Your task to perform on an android device: turn off location Image 0: 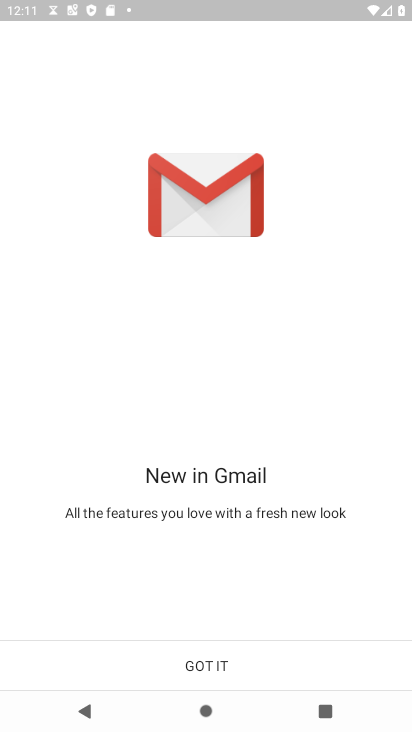
Step 0: press back button
Your task to perform on an android device: turn off location Image 1: 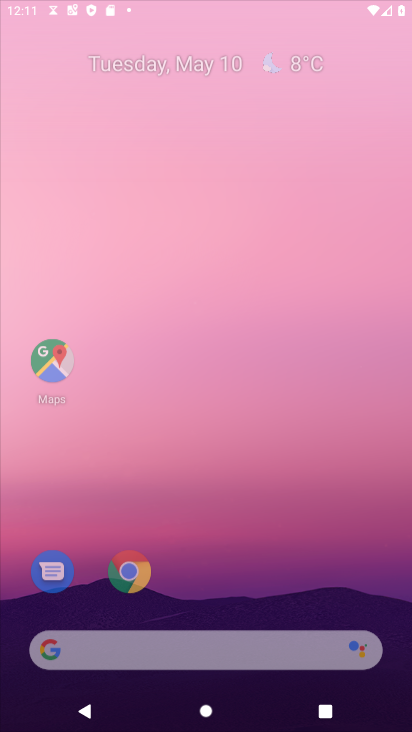
Step 1: press home button
Your task to perform on an android device: turn off location Image 2: 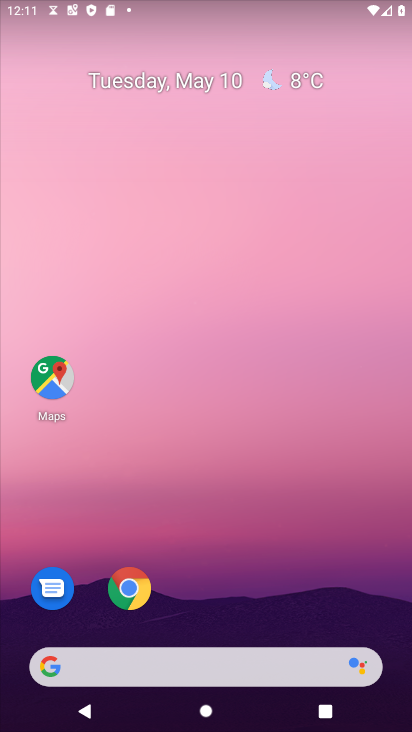
Step 2: drag from (200, 646) to (309, 70)
Your task to perform on an android device: turn off location Image 3: 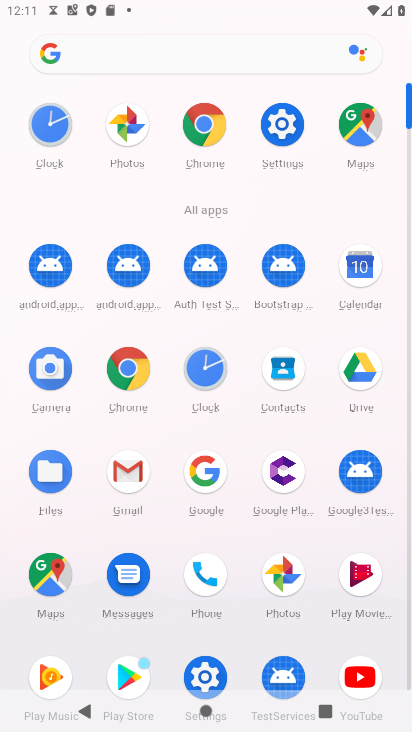
Step 3: click (210, 675)
Your task to perform on an android device: turn off location Image 4: 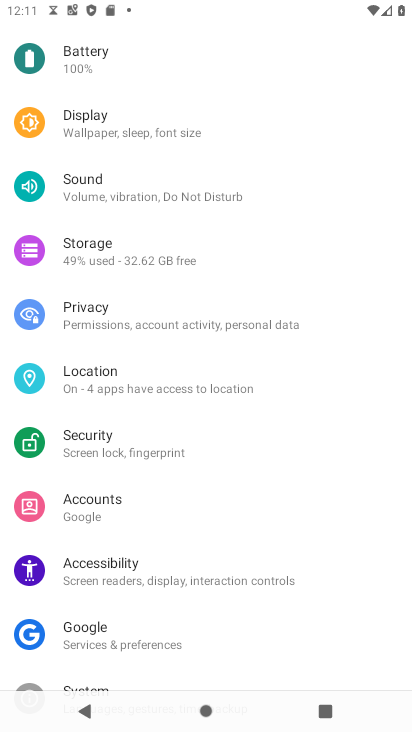
Step 4: click (137, 383)
Your task to perform on an android device: turn off location Image 5: 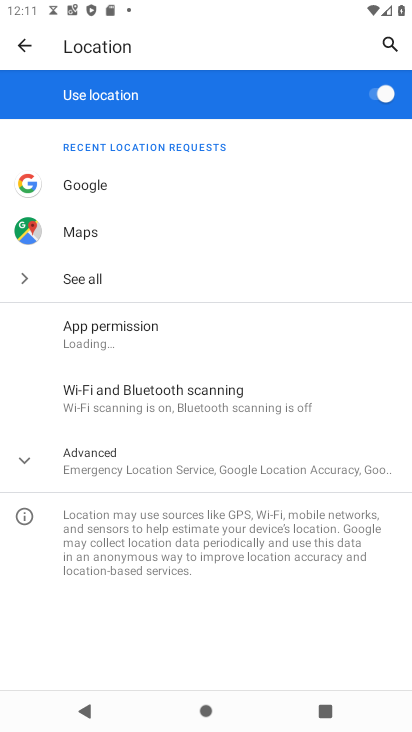
Step 5: click (378, 95)
Your task to perform on an android device: turn off location Image 6: 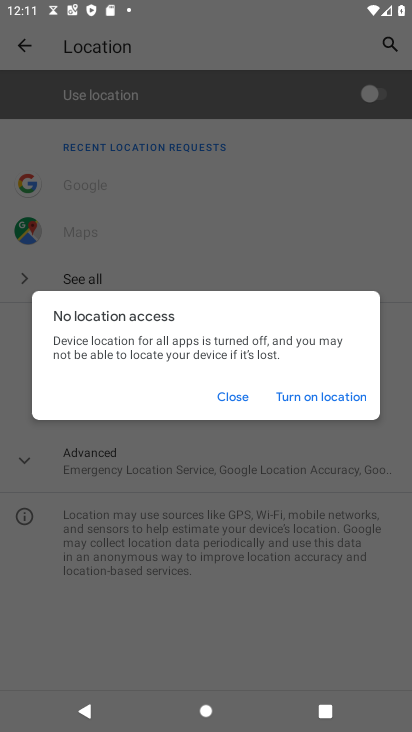
Step 6: click (214, 398)
Your task to perform on an android device: turn off location Image 7: 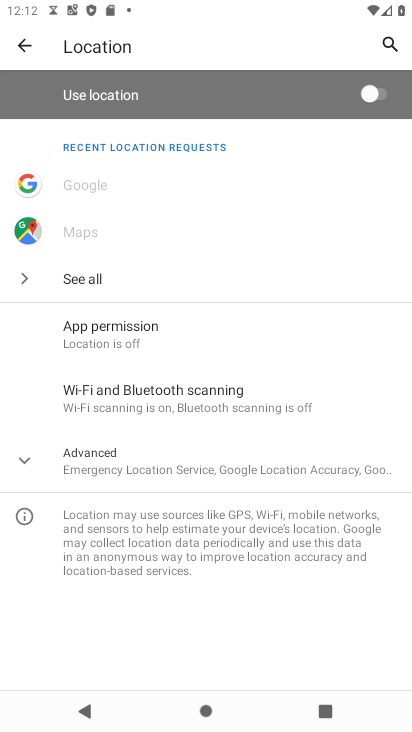
Step 7: task complete